Your task to perform on an android device: toggle sleep mode Image 0: 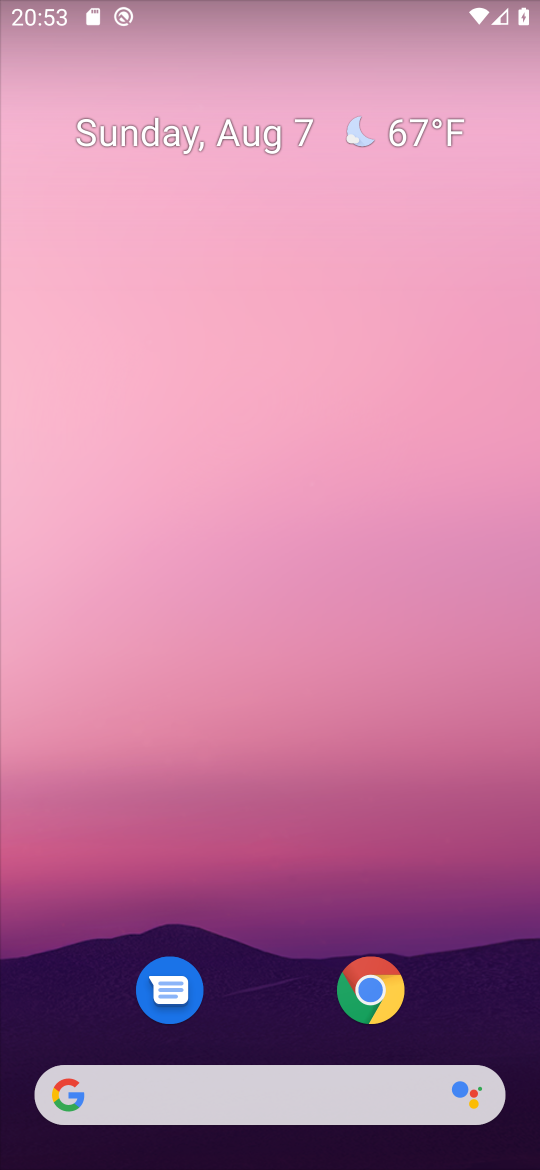
Step 0: drag from (285, 916) to (263, 0)
Your task to perform on an android device: toggle sleep mode Image 1: 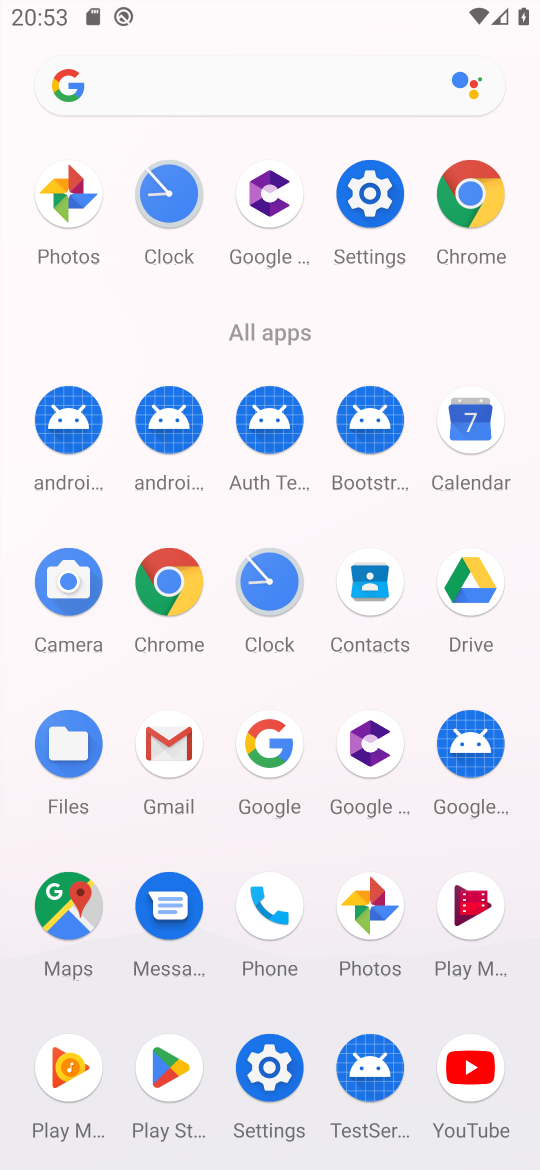
Step 1: click (369, 204)
Your task to perform on an android device: toggle sleep mode Image 2: 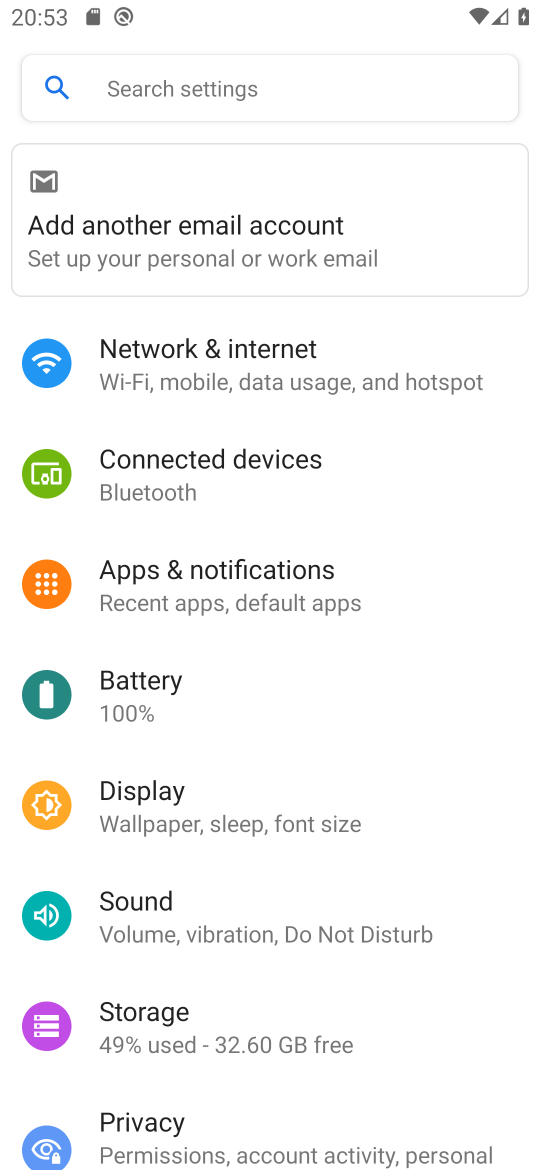
Step 2: click (252, 830)
Your task to perform on an android device: toggle sleep mode Image 3: 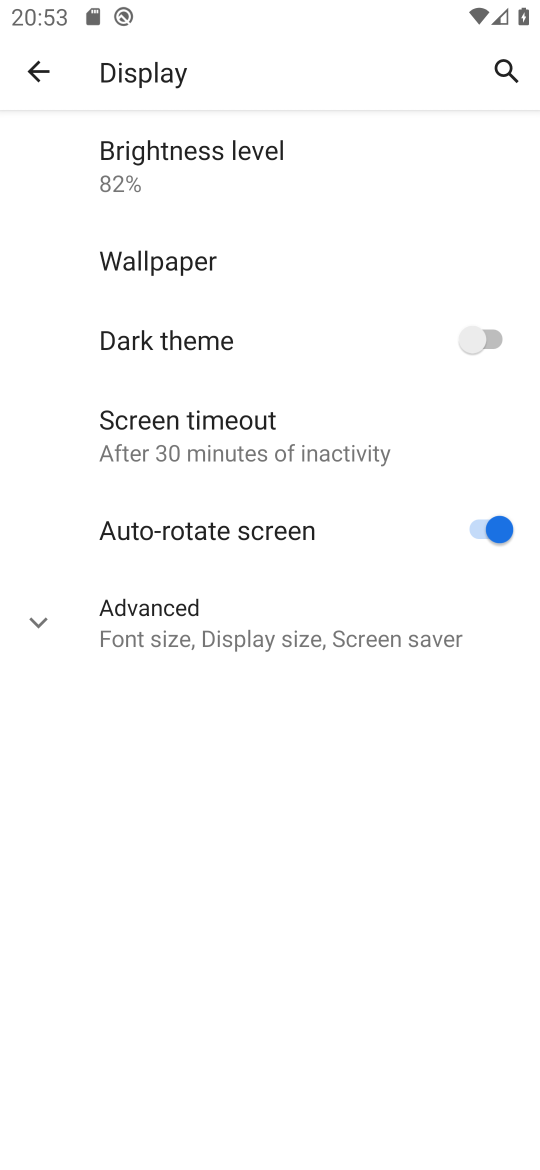
Step 3: click (35, 626)
Your task to perform on an android device: toggle sleep mode Image 4: 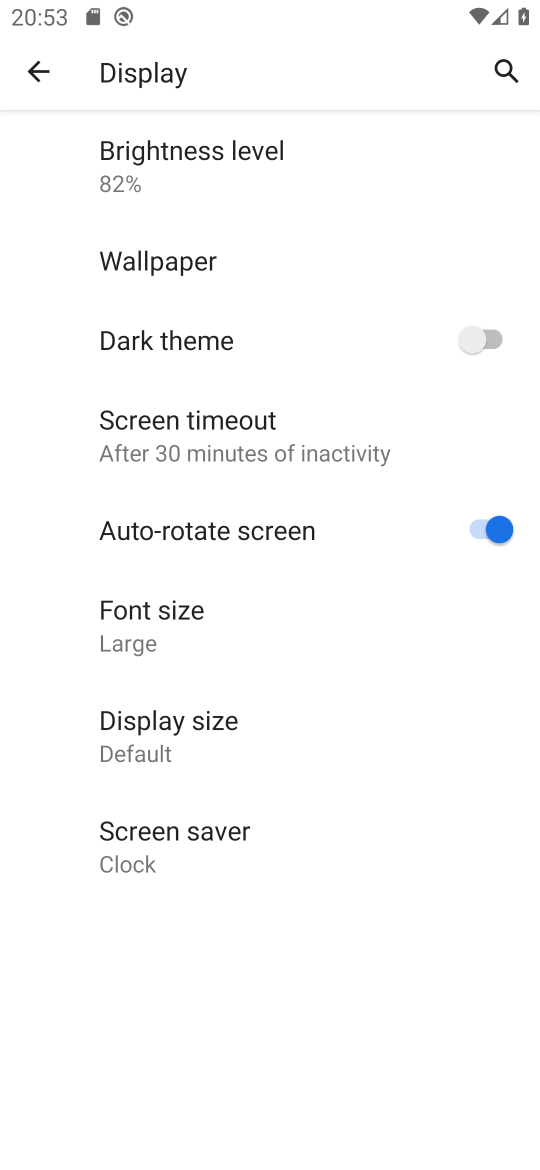
Step 4: task complete